Your task to perform on an android device: snooze an email in the gmail app Image 0: 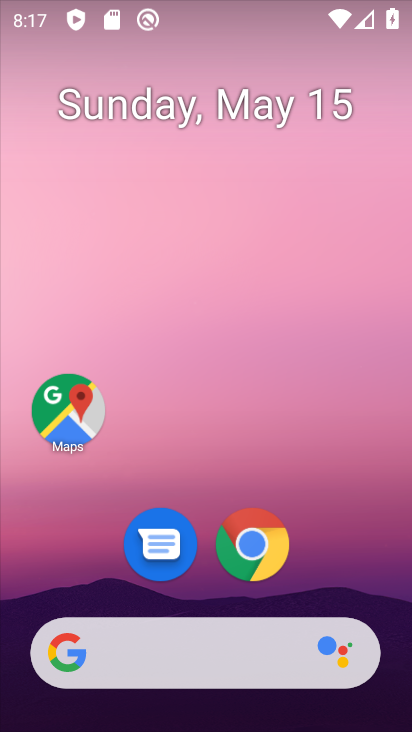
Step 0: drag from (326, 568) to (344, 4)
Your task to perform on an android device: snooze an email in the gmail app Image 1: 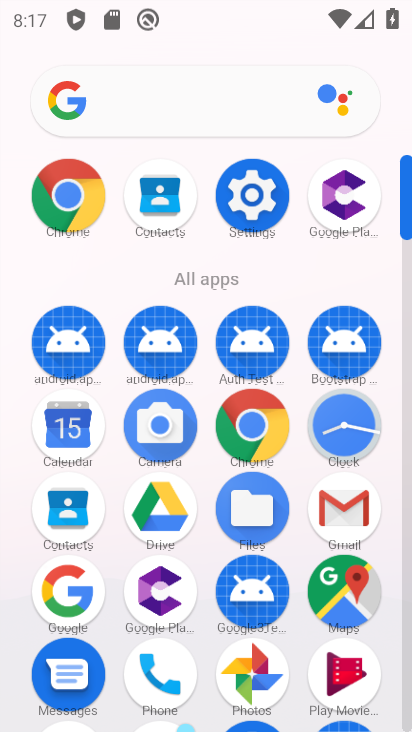
Step 1: click (350, 499)
Your task to perform on an android device: snooze an email in the gmail app Image 2: 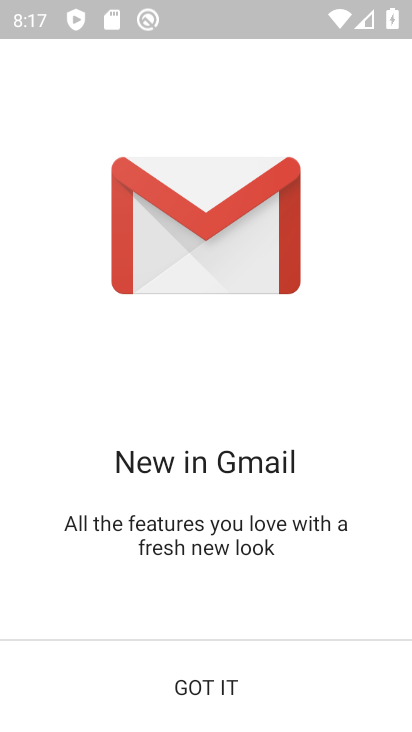
Step 2: click (267, 699)
Your task to perform on an android device: snooze an email in the gmail app Image 3: 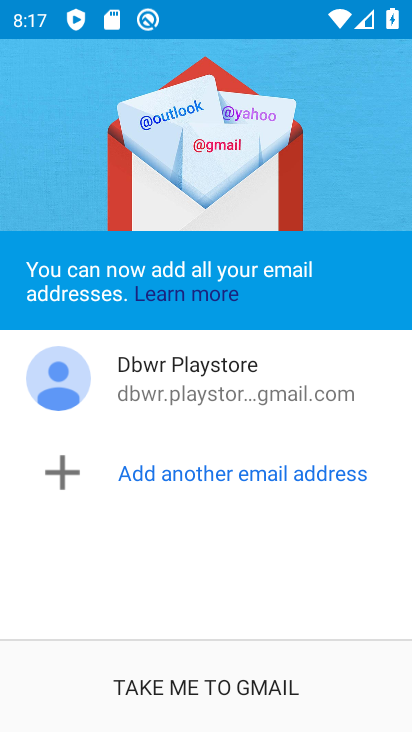
Step 3: click (267, 696)
Your task to perform on an android device: snooze an email in the gmail app Image 4: 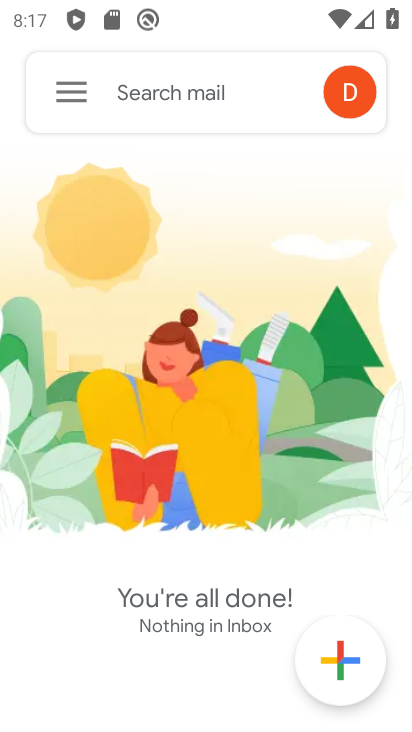
Step 4: click (80, 100)
Your task to perform on an android device: snooze an email in the gmail app Image 5: 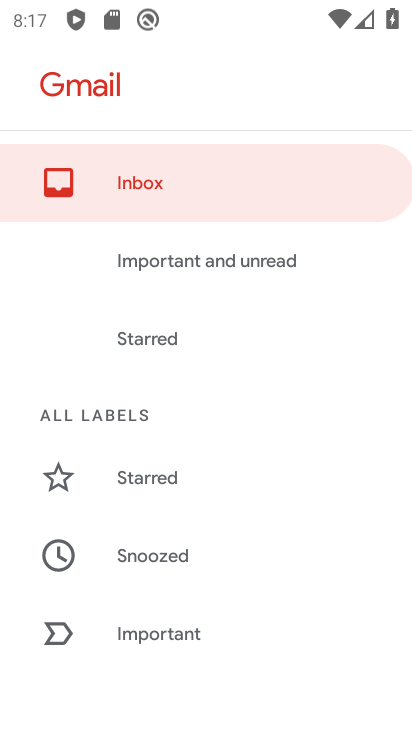
Step 5: drag from (246, 574) to (239, 237)
Your task to perform on an android device: snooze an email in the gmail app Image 6: 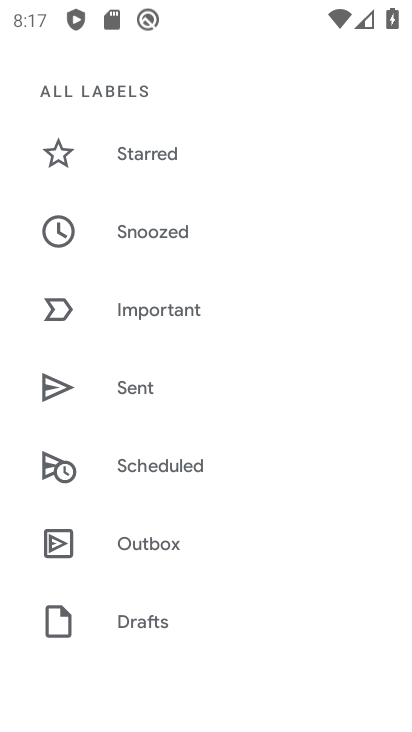
Step 6: drag from (201, 589) to (208, 187)
Your task to perform on an android device: snooze an email in the gmail app Image 7: 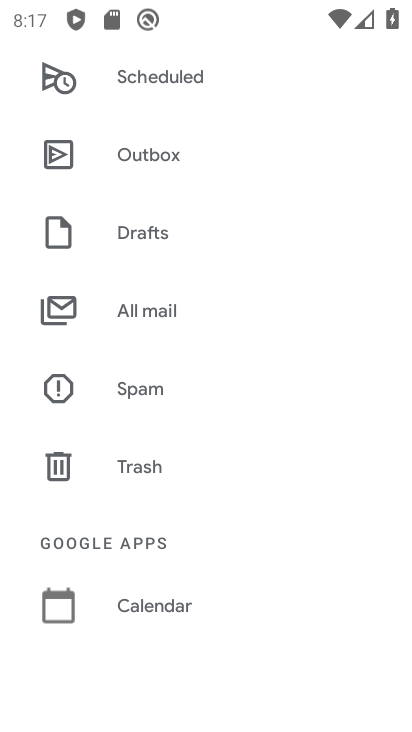
Step 7: click (159, 330)
Your task to perform on an android device: snooze an email in the gmail app Image 8: 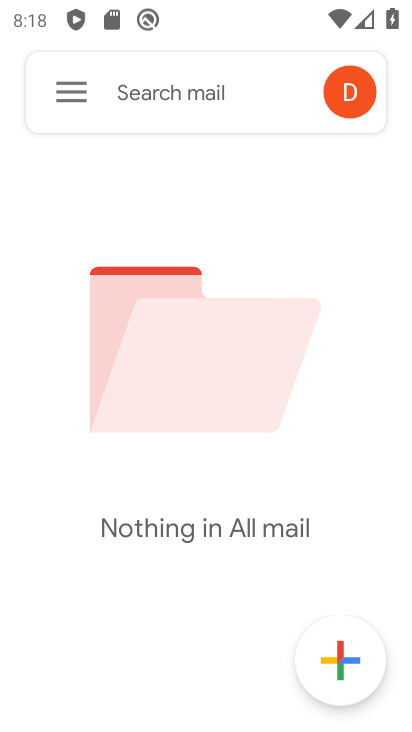
Step 8: task complete